Your task to perform on an android device: see tabs open on other devices in the chrome app Image 0: 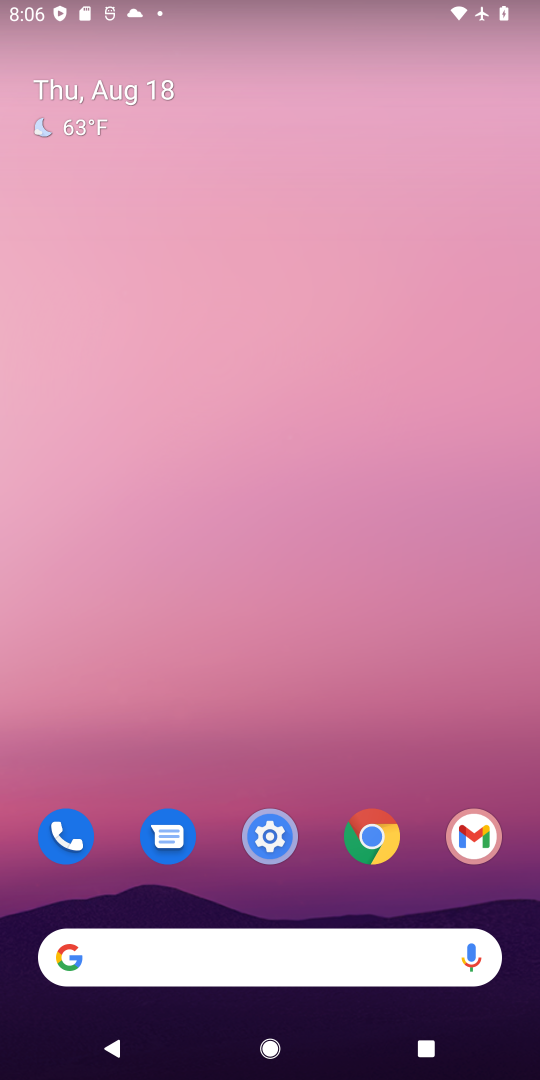
Step 0: drag from (340, 683) to (496, 90)
Your task to perform on an android device: see tabs open on other devices in the chrome app Image 1: 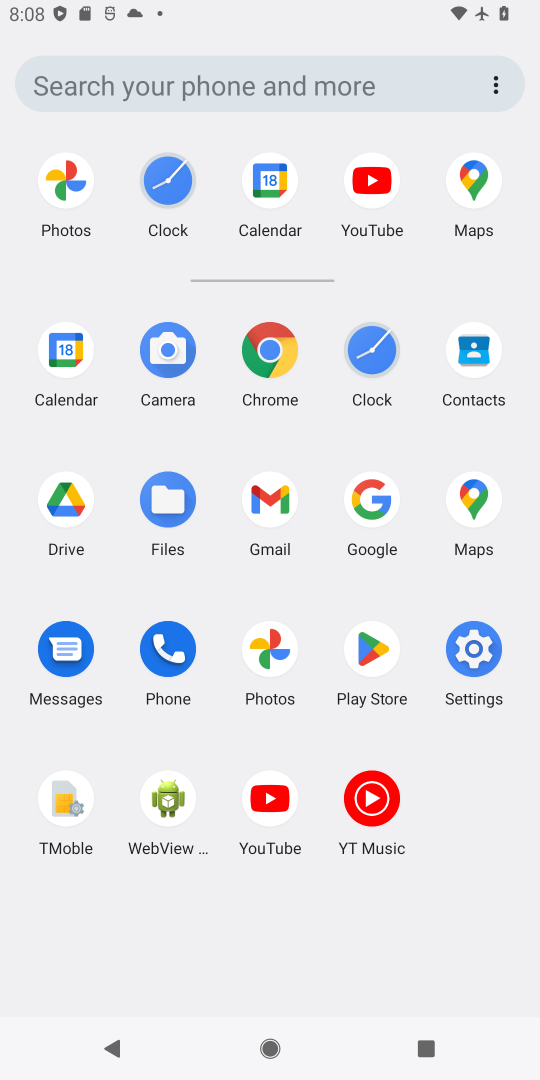
Step 1: click (274, 350)
Your task to perform on an android device: see tabs open on other devices in the chrome app Image 2: 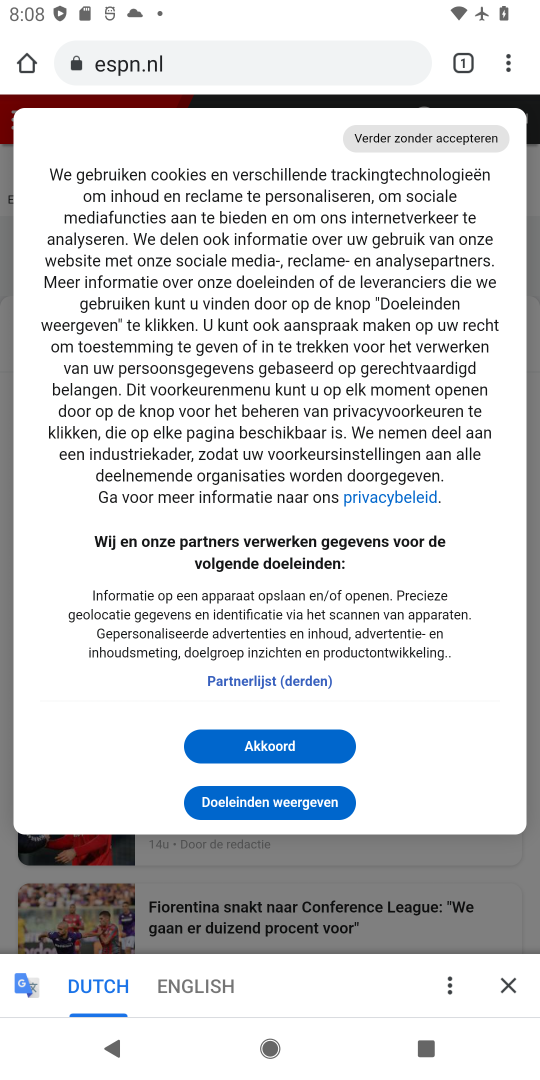
Step 2: task complete